Your task to perform on an android device: turn off smart reply in the gmail app Image 0: 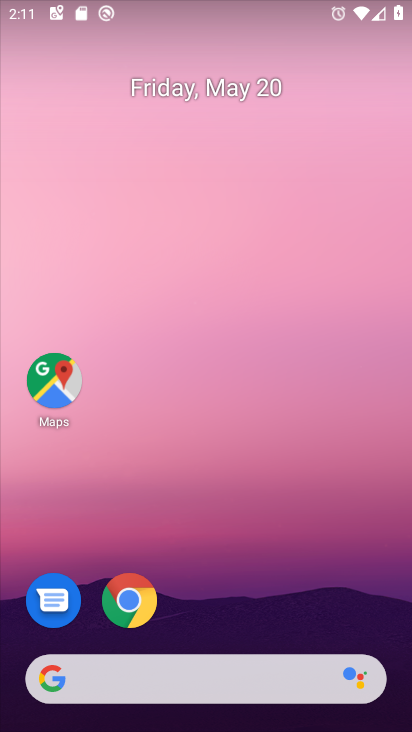
Step 0: drag from (233, 633) to (243, 16)
Your task to perform on an android device: turn off smart reply in the gmail app Image 1: 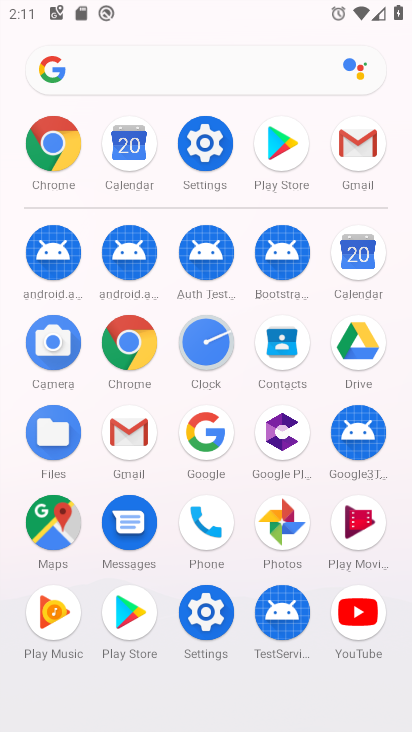
Step 1: click (140, 439)
Your task to perform on an android device: turn off smart reply in the gmail app Image 2: 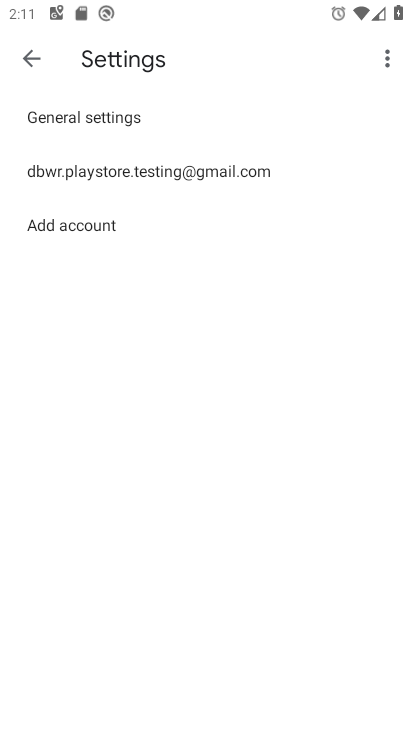
Step 2: click (159, 168)
Your task to perform on an android device: turn off smart reply in the gmail app Image 3: 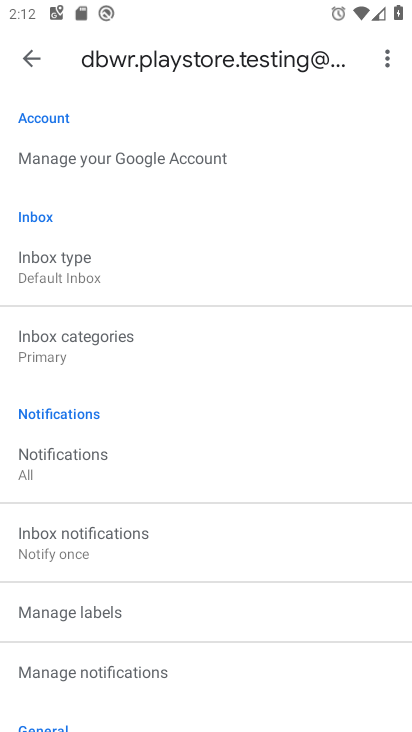
Step 3: drag from (156, 561) to (200, 268)
Your task to perform on an android device: turn off smart reply in the gmail app Image 4: 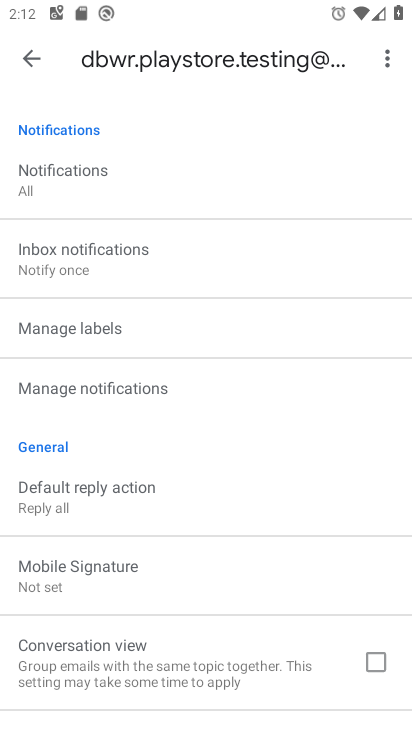
Step 4: drag from (186, 570) to (232, 251)
Your task to perform on an android device: turn off smart reply in the gmail app Image 5: 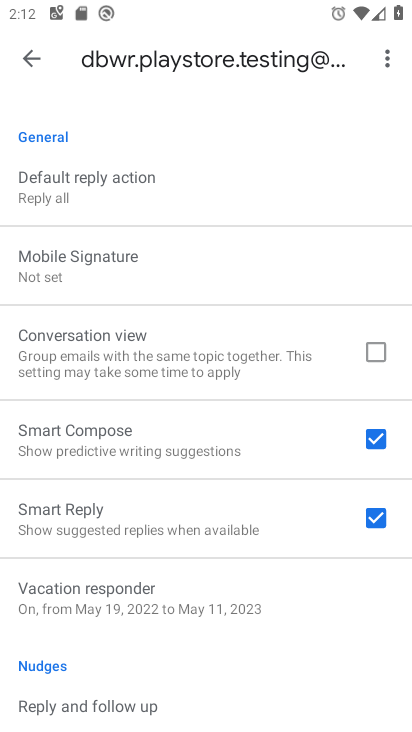
Step 5: click (364, 516)
Your task to perform on an android device: turn off smart reply in the gmail app Image 6: 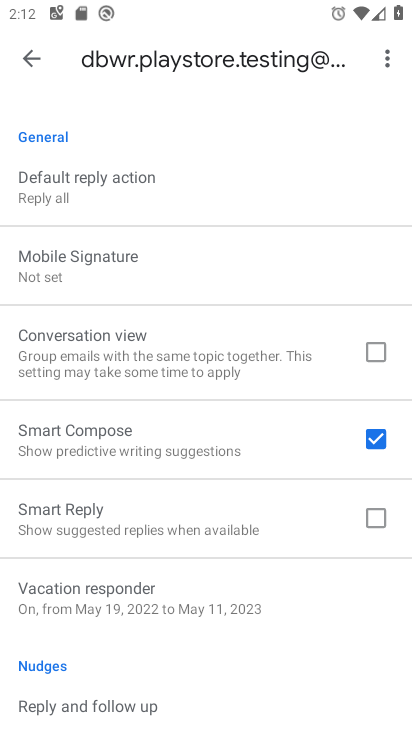
Step 6: task complete